Your task to perform on an android device: remove spam from my inbox in the gmail app Image 0: 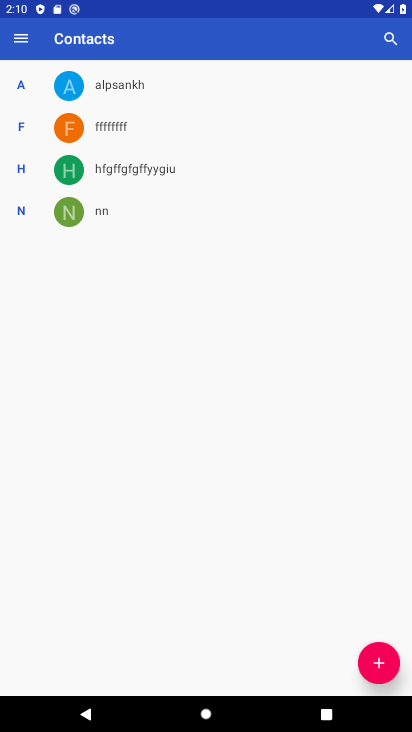
Step 0: press home button
Your task to perform on an android device: remove spam from my inbox in the gmail app Image 1: 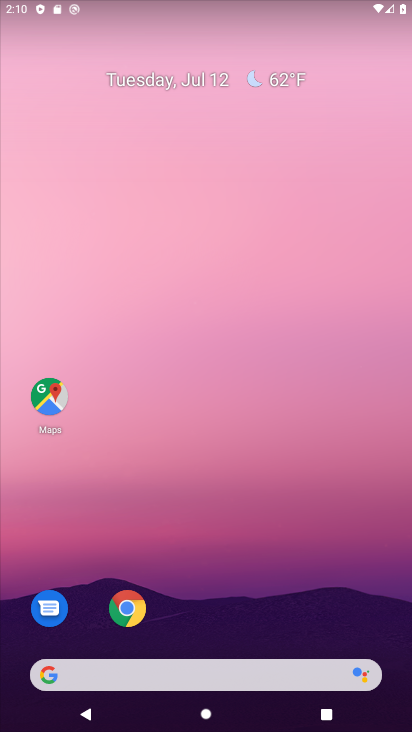
Step 1: drag from (184, 674) to (320, 301)
Your task to perform on an android device: remove spam from my inbox in the gmail app Image 2: 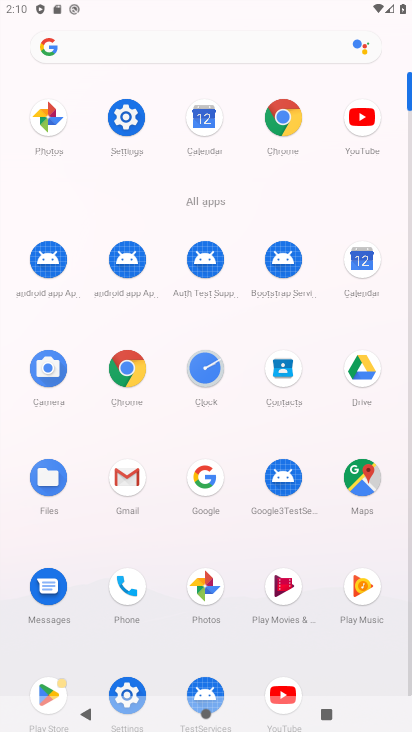
Step 2: click (120, 479)
Your task to perform on an android device: remove spam from my inbox in the gmail app Image 3: 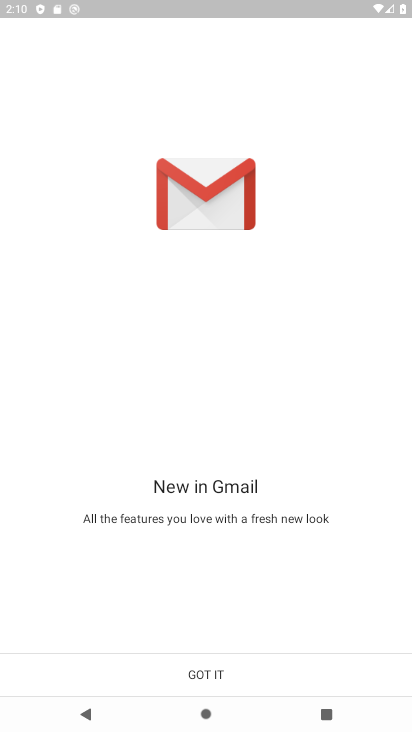
Step 3: click (216, 666)
Your task to perform on an android device: remove spam from my inbox in the gmail app Image 4: 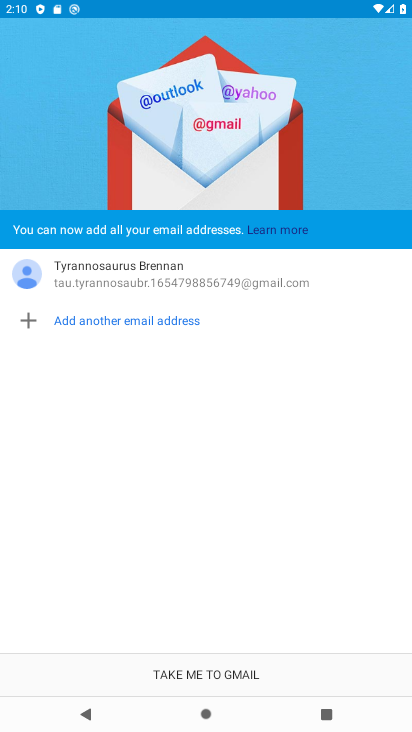
Step 4: click (208, 676)
Your task to perform on an android device: remove spam from my inbox in the gmail app Image 5: 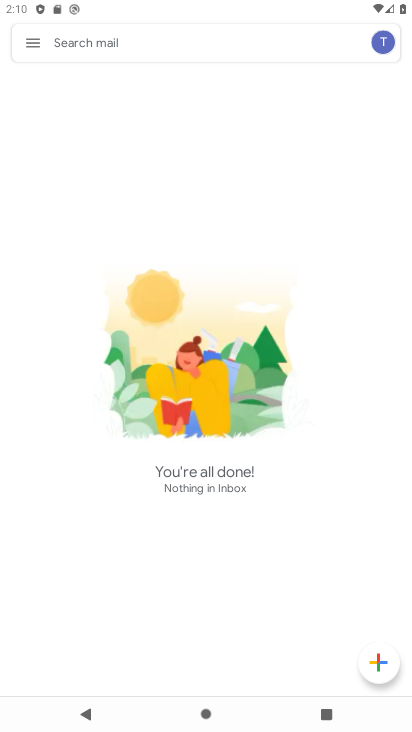
Step 5: click (30, 42)
Your task to perform on an android device: remove spam from my inbox in the gmail app Image 6: 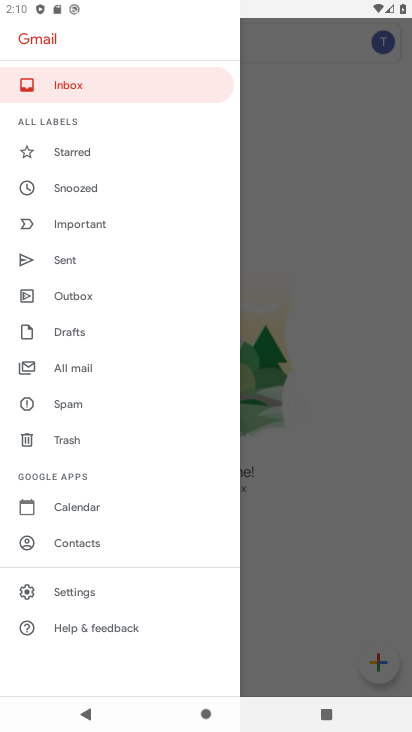
Step 6: click (76, 410)
Your task to perform on an android device: remove spam from my inbox in the gmail app Image 7: 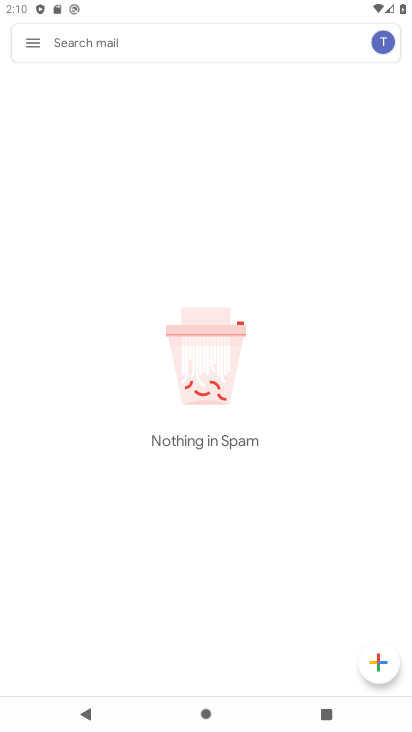
Step 7: task complete